Your task to perform on an android device: open a bookmark in the chrome app Image 0: 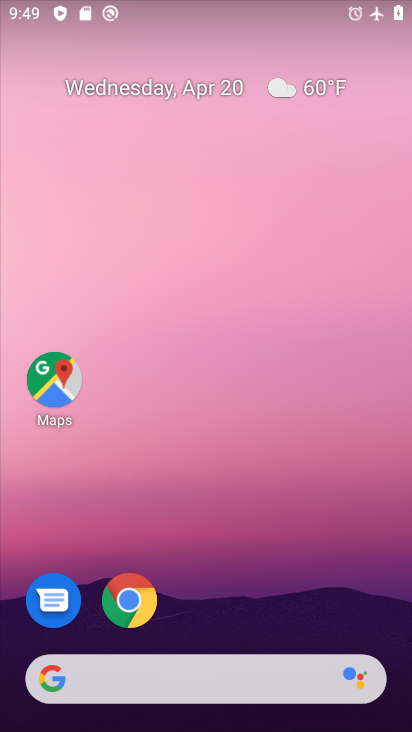
Step 0: click (128, 595)
Your task to perform on an android device: open a bookmark in the chrome app Image 1: 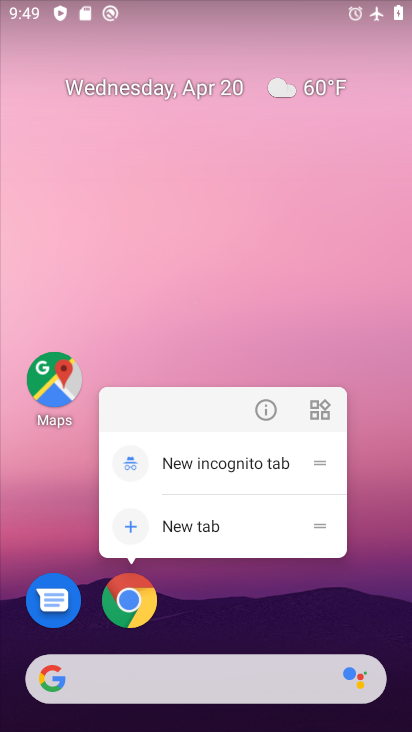
Step 1: click (128, 595)
Your task to perform on an android device: open a bookmark in the chrome app Image 2: 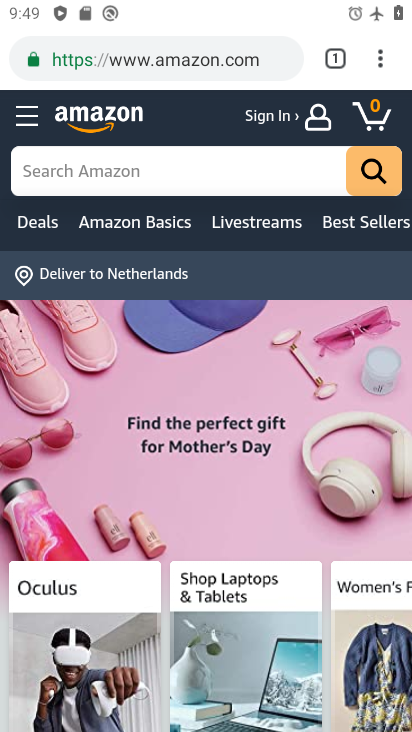
Step 2: task complete